Your task to perform on an android device: Open the stopwatch Image 0: 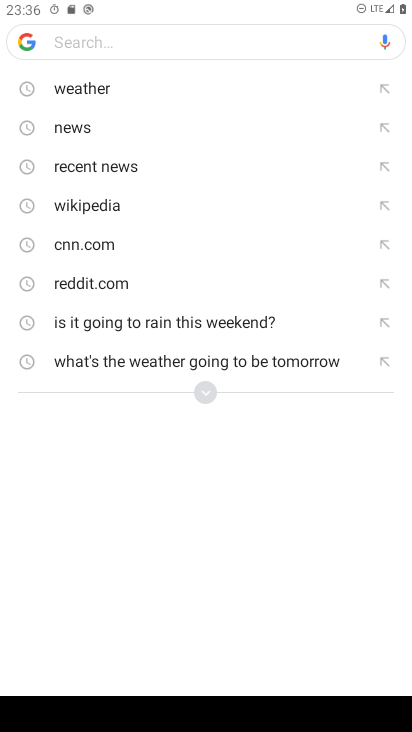
Step 0: press home button
Your task to perform on an android device: Open the stopwatch Image 1: 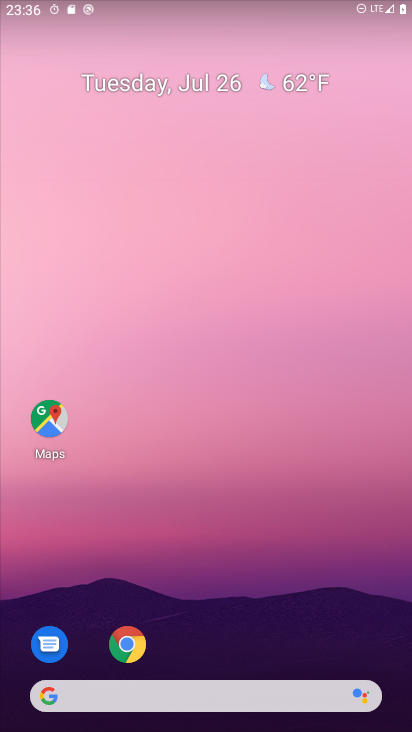
Step 1: drag from (228, 621) to (184, 31)
Your task to perform on an android device: Open the stopwatch Image 2: 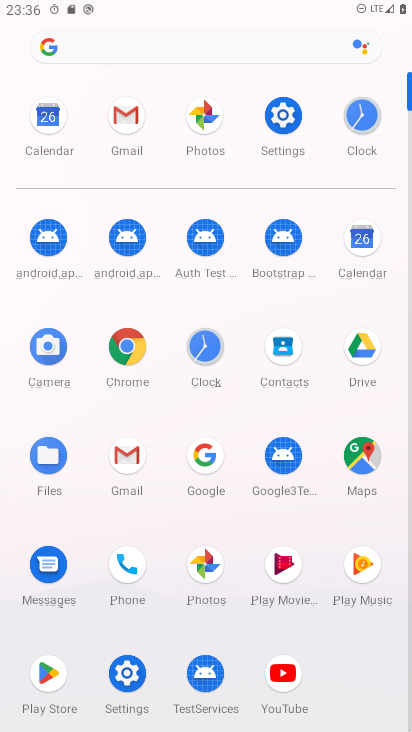
Step 2: click (363, 109)
Your task to perform on an android device: Open the stopwatch Image 3: 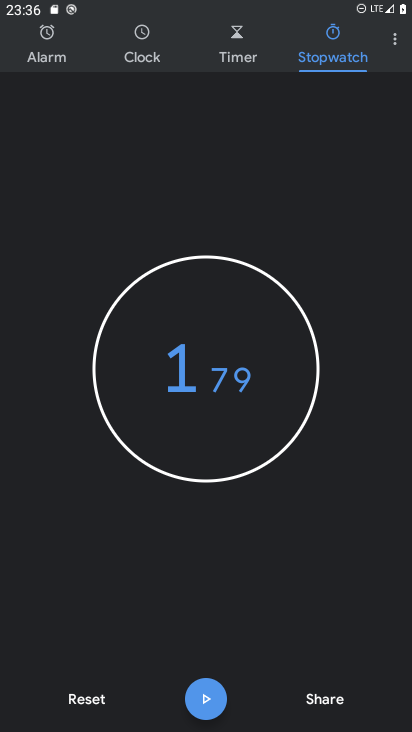
Step 3: task complete